Your task to perform on an android device: Go to wifi settings Image 0: 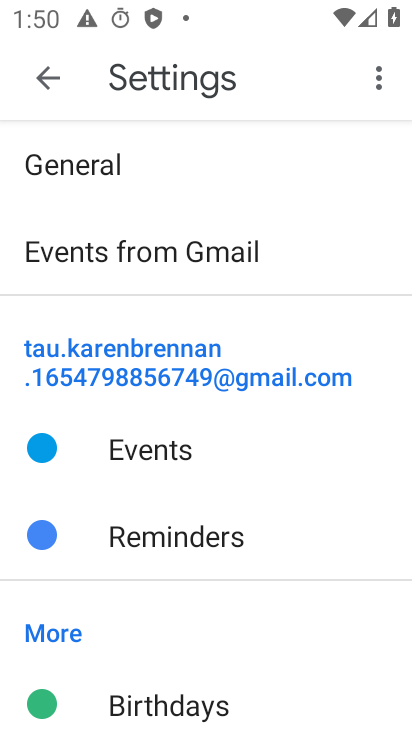
Step 0: press home button
Your task to perform on an android device: Go to wifi settings Image 1: 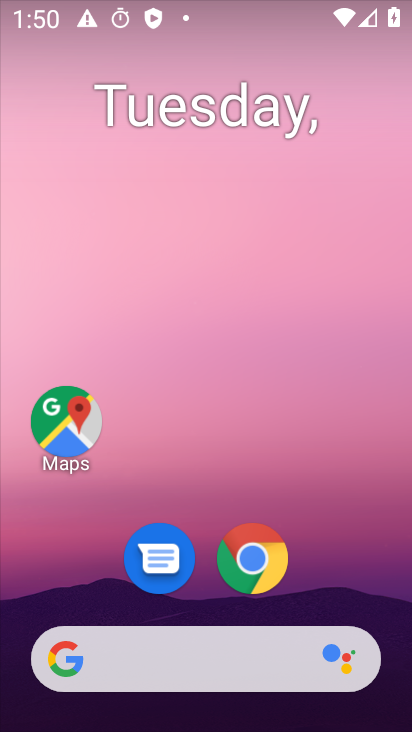
Step 1: drag from (241, 473) to (207, 7)
Your task to perform on an android device: Go to wifi settings Image 2: 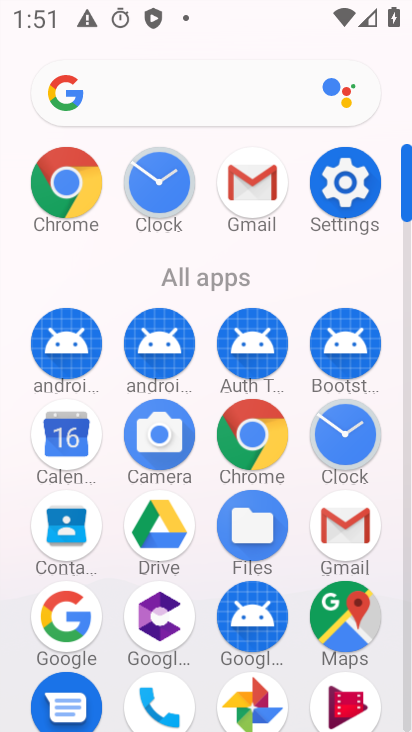
Step 2: click (330, 276)
Your task to perform on an android device: Go to wifi settings Image 3: 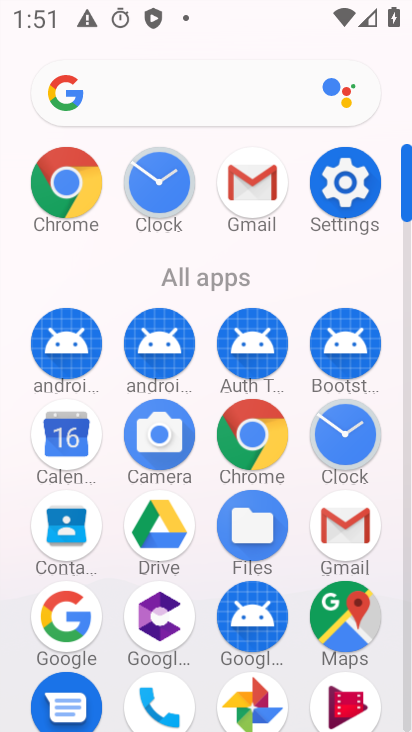
Step 3: click (324, 190)
Your task to perform on an android device: Go to wifi settings Image 4: 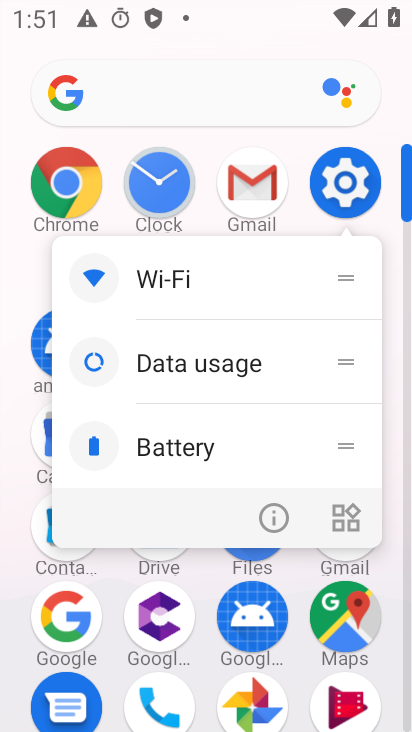
Step 4: click (318, 185)
Your task to perform on an android device: Go to wifi settings Image 5: 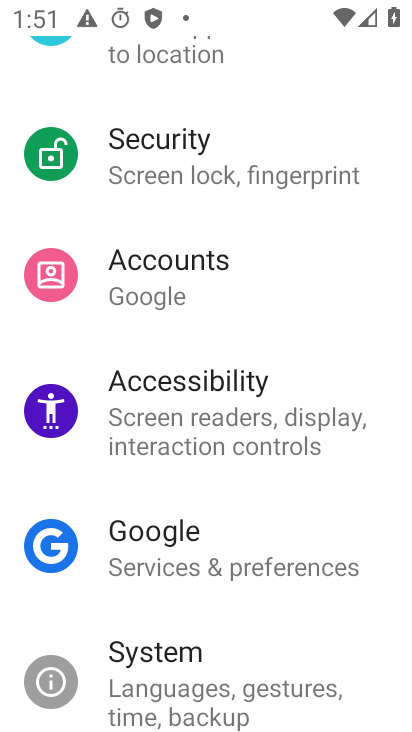
Step 5: drag from (180, 171) to (188, 631)
Your task to perform on an android device: Go to wifi settings Image 6: 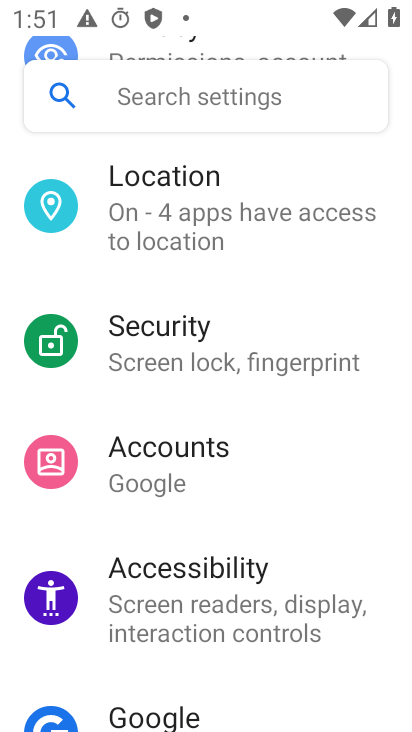
Step 6: drag from (195, 344) to (195, 636)
Your task to perform on an android device: Go to wifi settings Image 7: 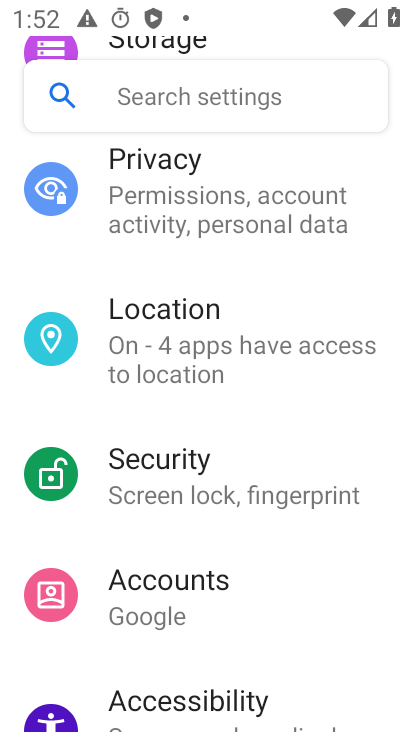
Step 7: drag from (229, 448) to (229, 656)
Your task to perform on an android device: Go to wifi settings Image 8: 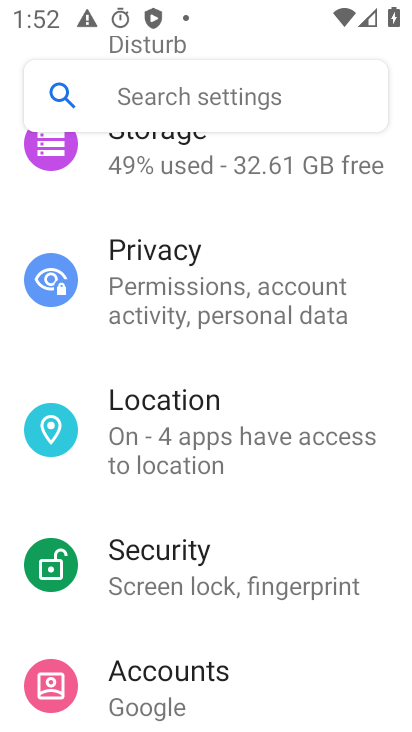
Step 8: drag from (180, 187) to (221, 511)
Your task to perform on an android device: Go to wifi settings Image 9: 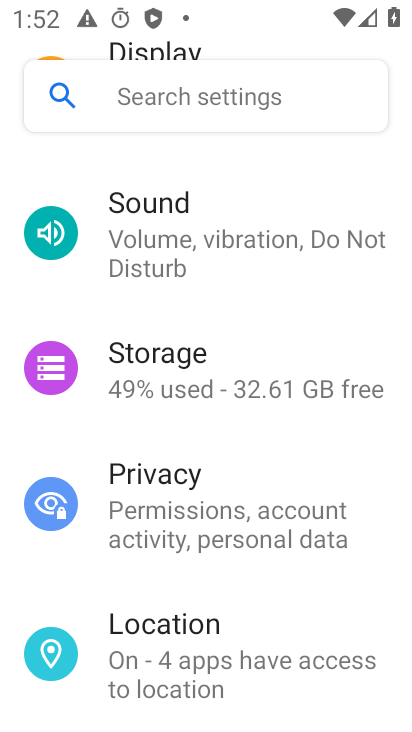
Step 9: drag from (201, 289) to (201, 603)
Your task to perform on an android device: Go to wifi settings Image 10: 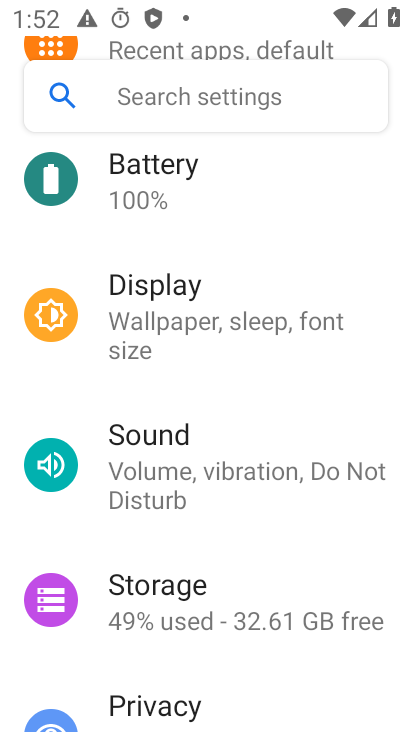
Step 10: drag from (174, 234) to (210, 603)
Your task to perform on an android device: Go to wifi settings Image 11: 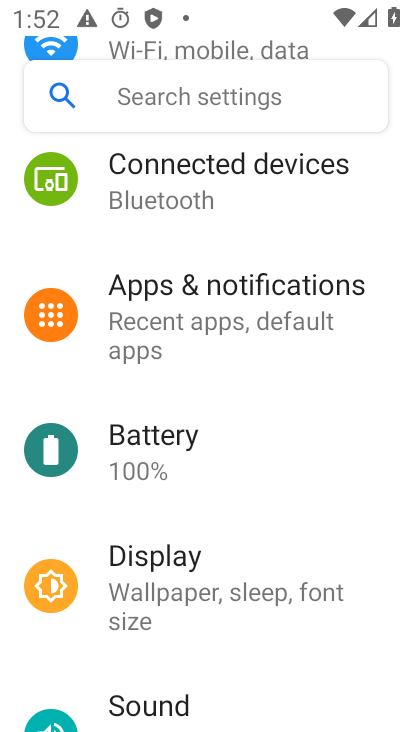
Step 11: drag from (203, 229) to (206, 568)
Your task to perform on an android device: Go to wifi settings Image 12: 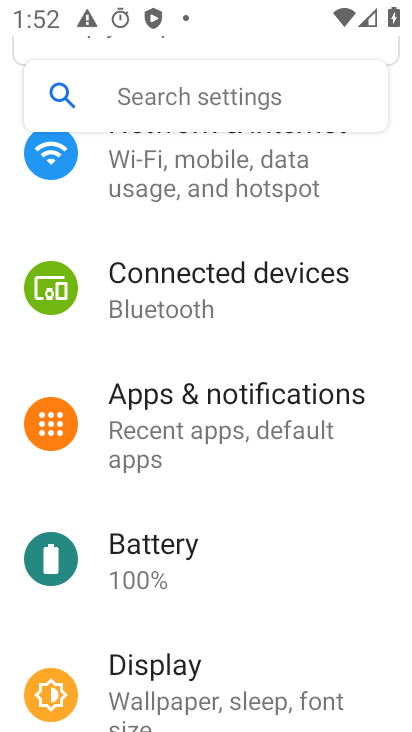
Step 12: click (171, 175)
Your task to perform on an android device: Go to wifi settings Image 13: 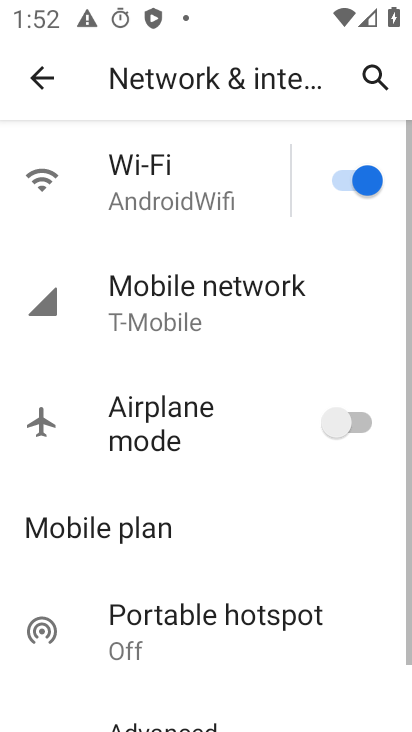
Step 13: click (171, 175)
Your task to perform on an android device: Go to wifi settings Image 14: 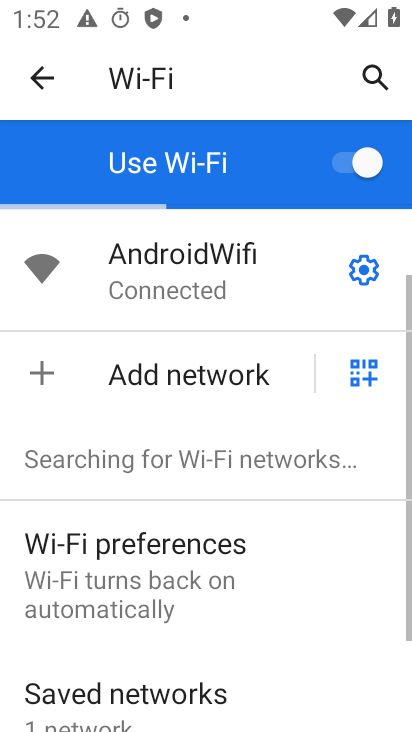
Step 14: task complete